Your task to perform on an android device: Open Youtube and go to the subscriptions tab Image 0: 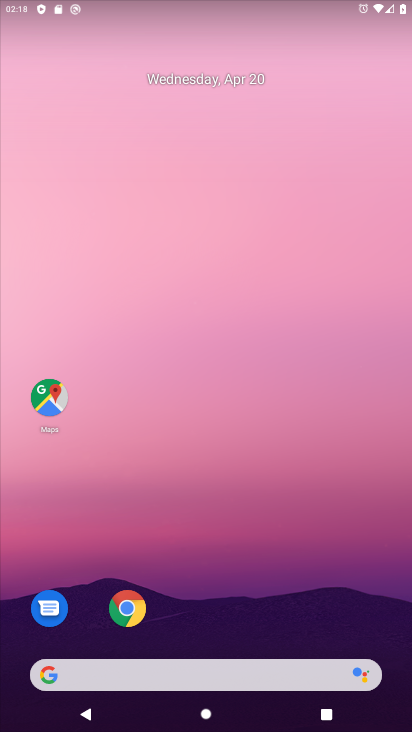
Step 0: drag from (351, 611) to (345, 229)
Your task to perform on an android device: Open Youtube and go to the subscriptions tab Image 1: 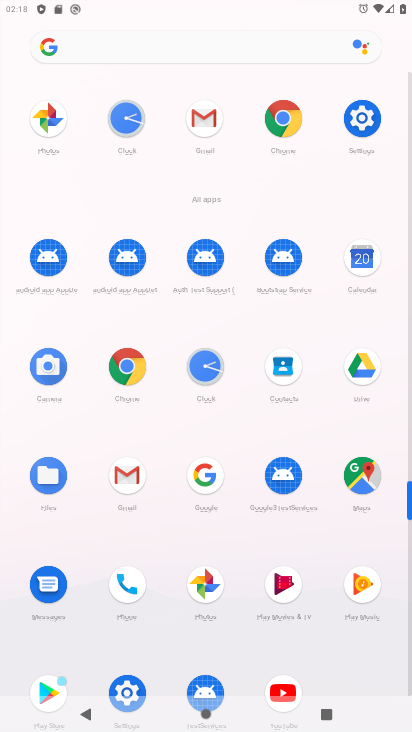
Step 1: click (287, 685)
Your task to perform on an android device: Open Youtube and go to the subscriptions tab Image 2: 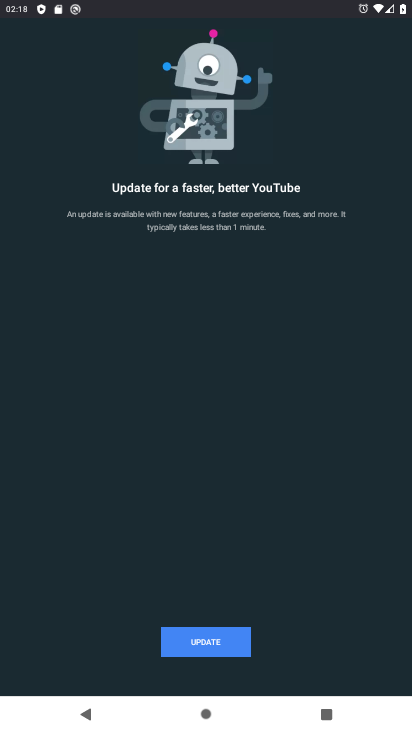
Step 2: press home button
Your task to perform on an android device: Open Youtube and go to the subscriptions tab Image 3: 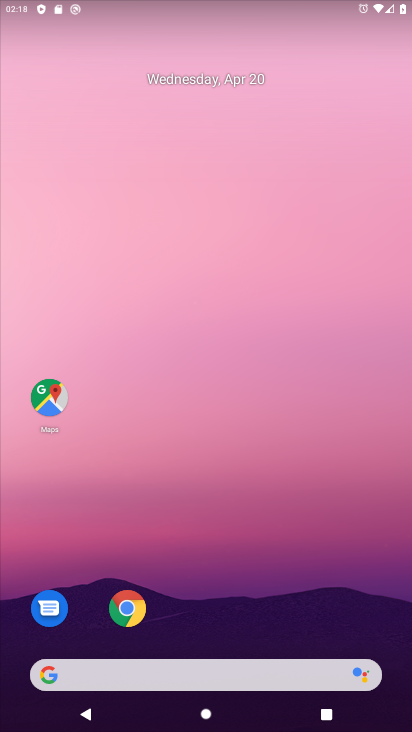
Step 3: drag from (330, 584) to (290, 177)
Your task to perform on an android device: Open Youtube and go to the subscriptions tab Image 4: 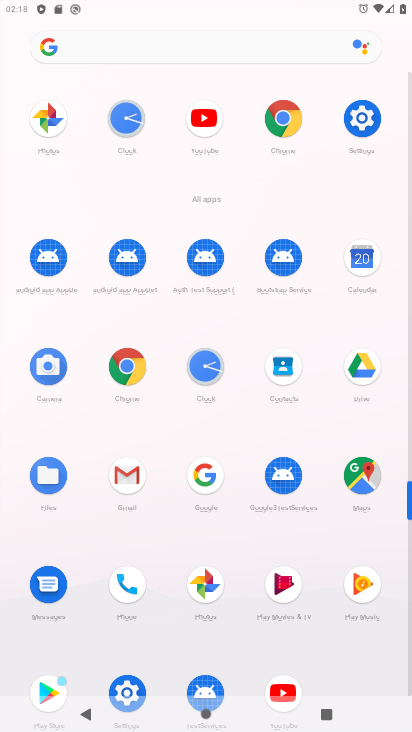
Step 4: click (221, 121)
Your task to perform on an android device: Open Youtube and go to the subscriptions tab Image 5: 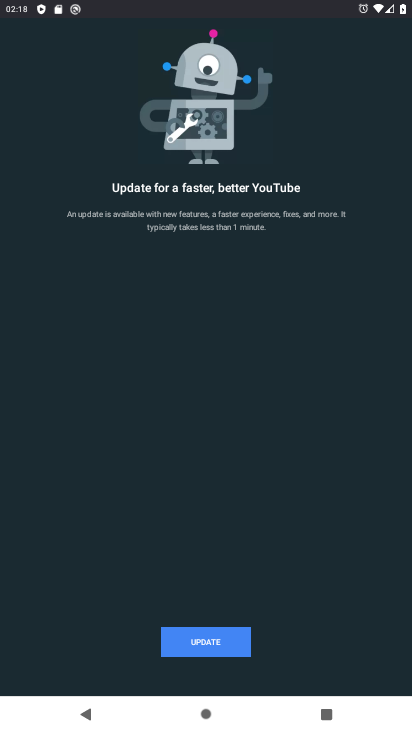
Step 5: press home button
Your task to perform on an android device: Open Youtube and go to the subscriptions tab Image 6: 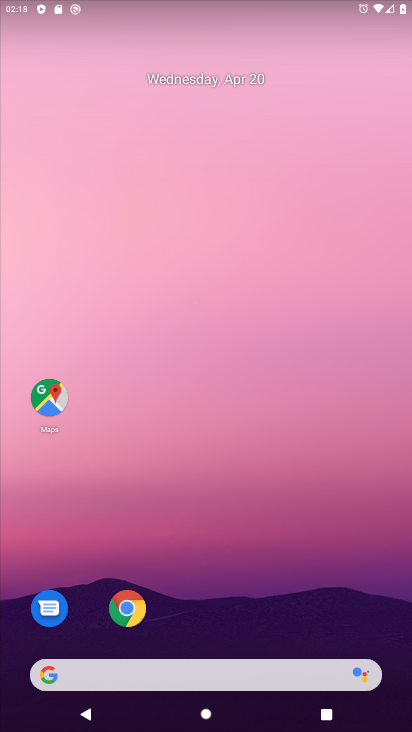
Step 6: drag from (240, 527) to (274, 193)
Your task to perform on an android device: Open Youtube and go to the subscriptions tab Image 7: 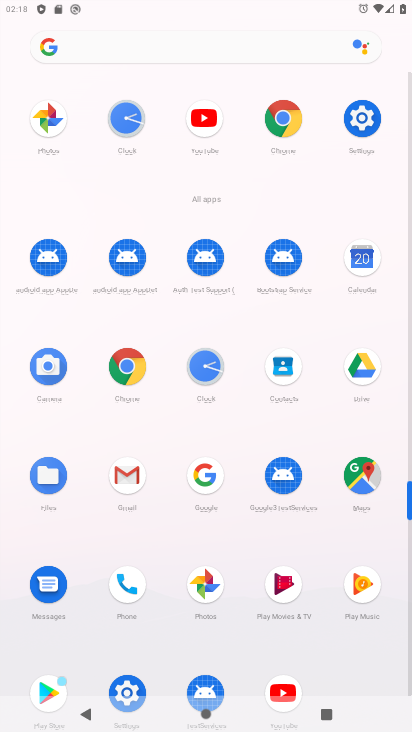
Step 7: click (285, 686)
Your task to perform on an android device: Open Youtube and go to the subscriptions tab Image 8: 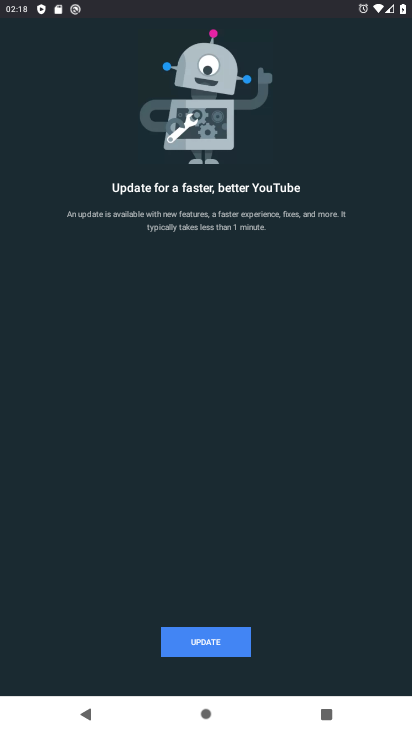
Step 8: click (222, 647)
Your task to perform on an android device: Open Youtube and go to the subscriptions tab Image 9: 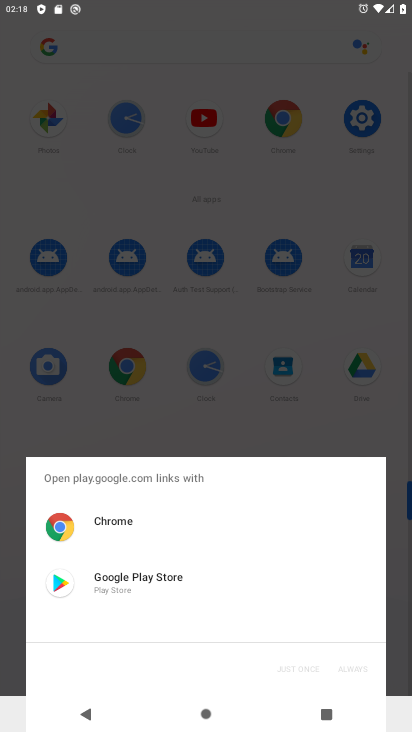
Step 9: click (169, 593)
Your task to perform on an android device: Open Youtube and go to the subscriptions tab Image 10: 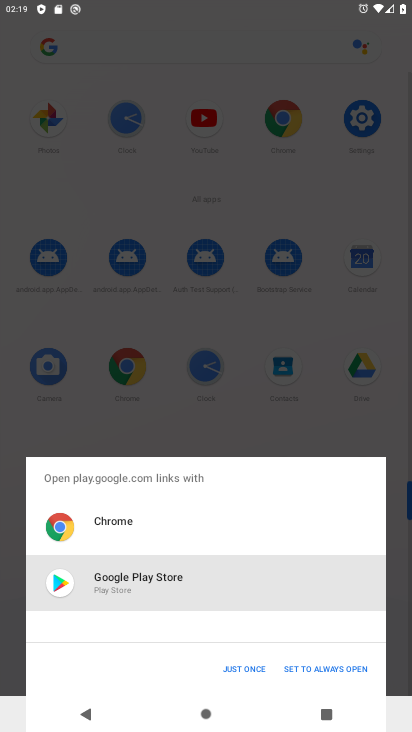
Step 10: click (256, 663)
Your task to perform on an android device: Open Youtube and go to the subscriptions tab Image 11: 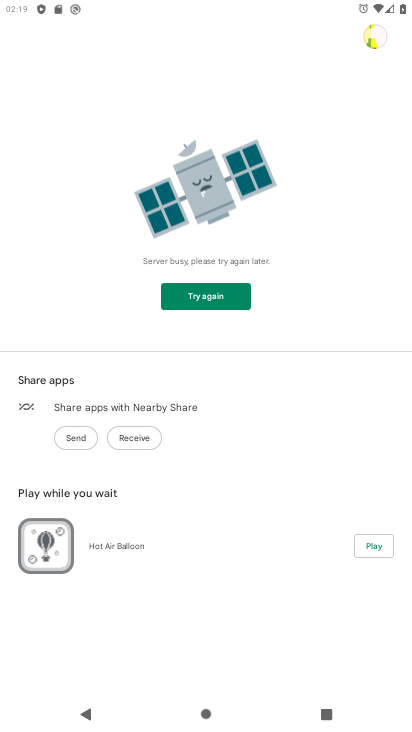
Step 11: task complete